Your task to perform on an android device: check battery use Image 0: 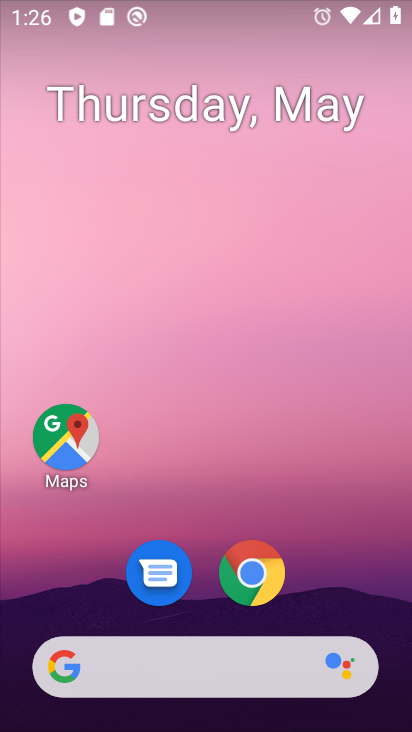
Step 0: drag from (391, 671) to (401, 351)
Your task to perform on an android device: check battery use Image 1: 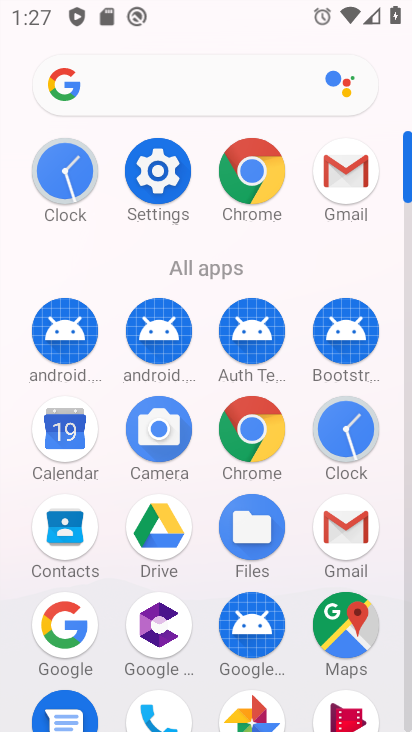
Step 1: click (145, 160)
Your task to perform on an android device: check battery use Image 2: 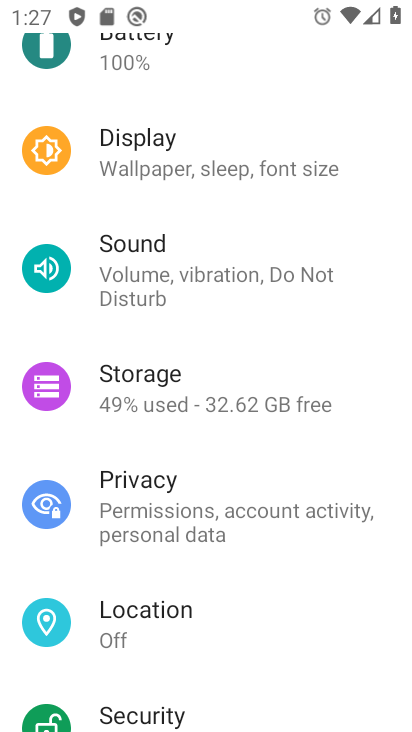
Step 2: drag from (285, 658) to (297, 338)
Your task to perform on an android device: check battery use Image 3: 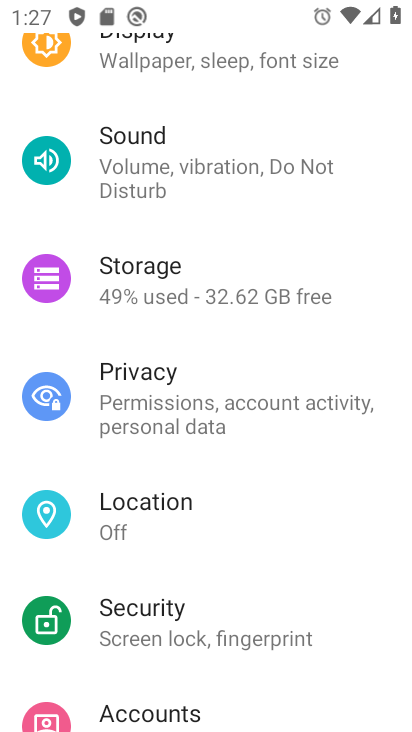
Step 3: drag from (247, 149) to (304, 590)
Your task to perform on an android device: check battery use Image 4: 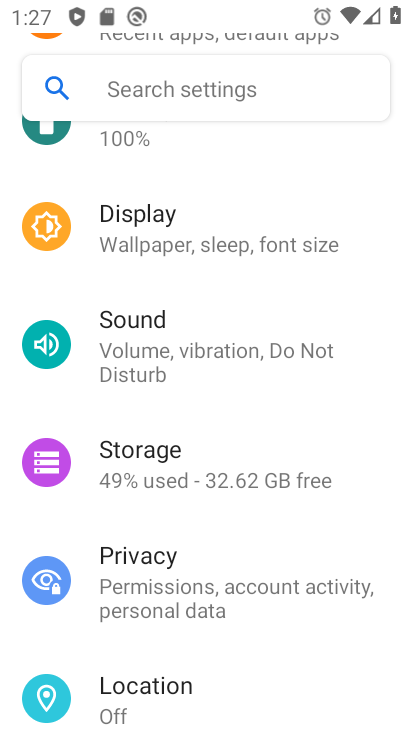
Step 4: drag from (308, 416) to (341, 555)
Your task to perform on an android device: check battery use Image 5: 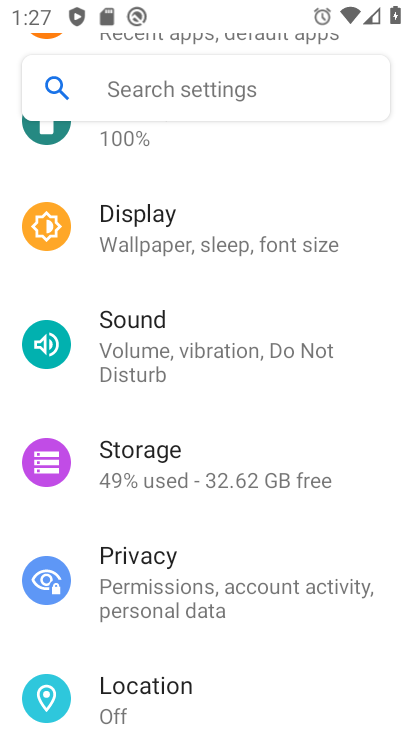
Step 5: click (115, 131)
Your task to perform on an android device: check battery use Image 6: 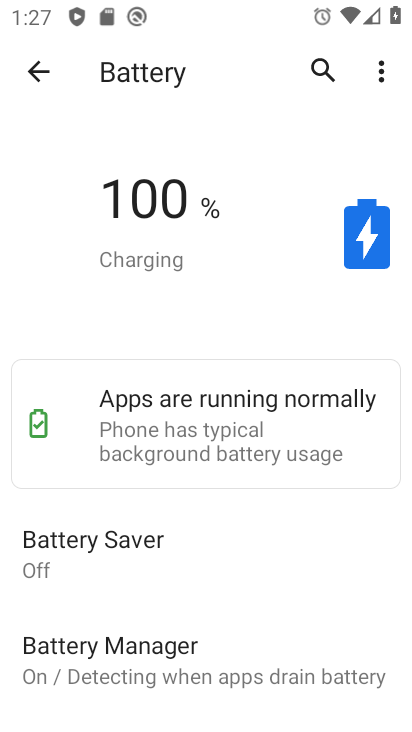
Step 6: click (381, 57)
Your task to perform on an android device: check battery use Image 7: 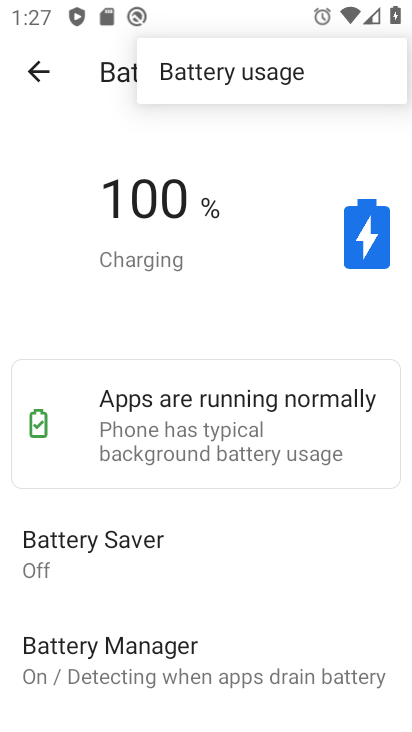
Step 7: click (266, 57)
Your task to perform on an android device: check battery use Image 8: 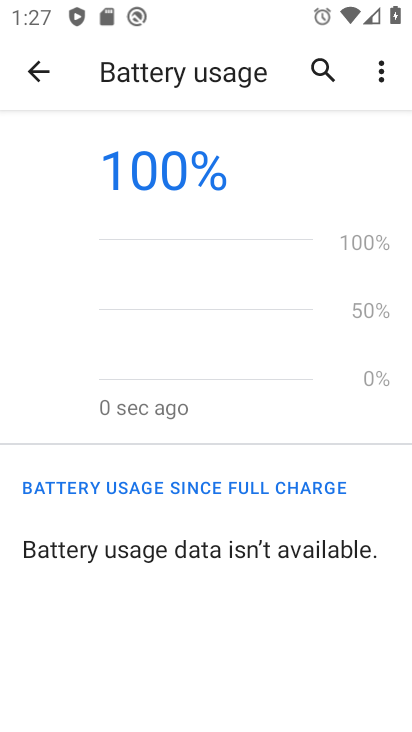
Step 8: task complete